Your task to perform on an android device: open a new tab in the chrome app Image 0: 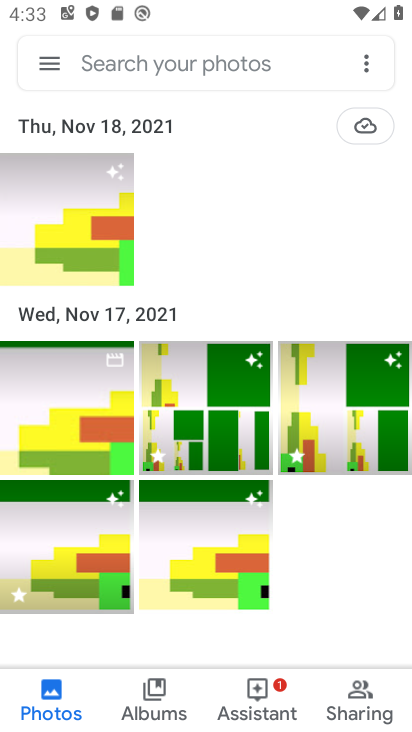
Step 0: press home button
Your task to perform on an android device: open a new tab in the chrome app Image 1: 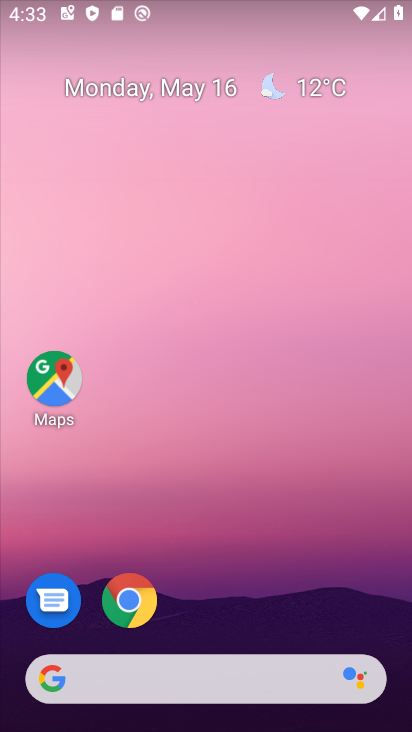
Step 1: click (139, 600)
Your task to perform on an android device: open a new tab in the chrome app Image 2: 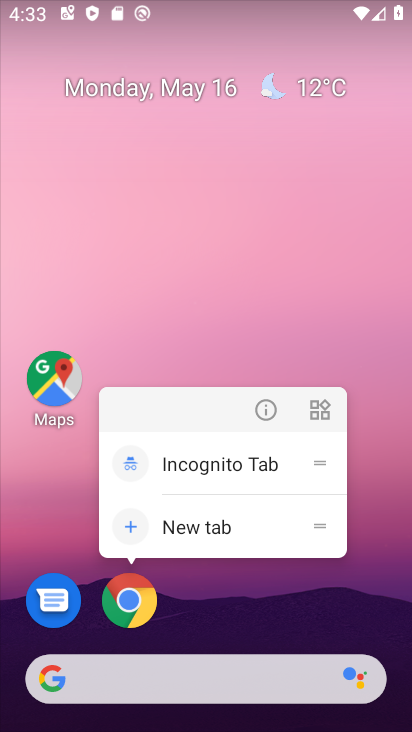
Step 2: click (129, 594)
Your task to perform on an android device: open a new tab in the chrome app Image 3: 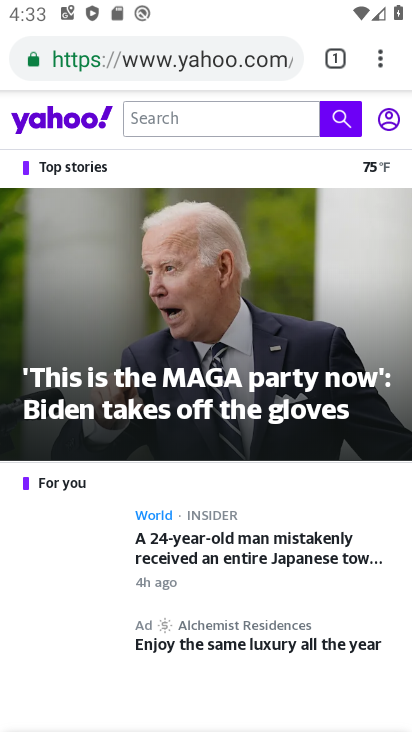
Step 3: click (376, 49)
Your task to perform on an android device: open a new tab in the chrome app Image 4: 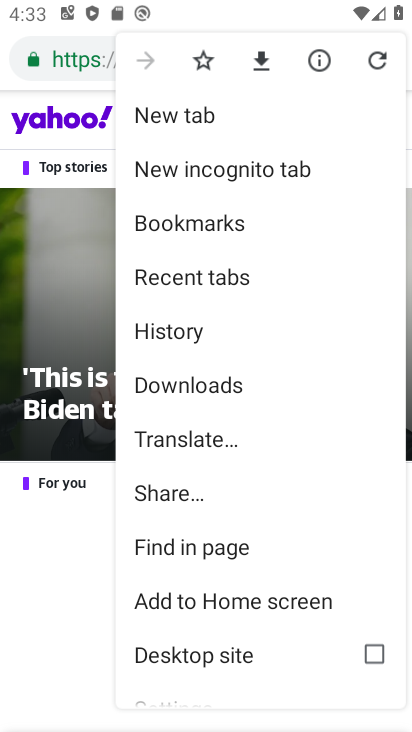
Step 4: click (182, 120)
Your task to perform on an android device: open a new tab in the chrome app Image 5: 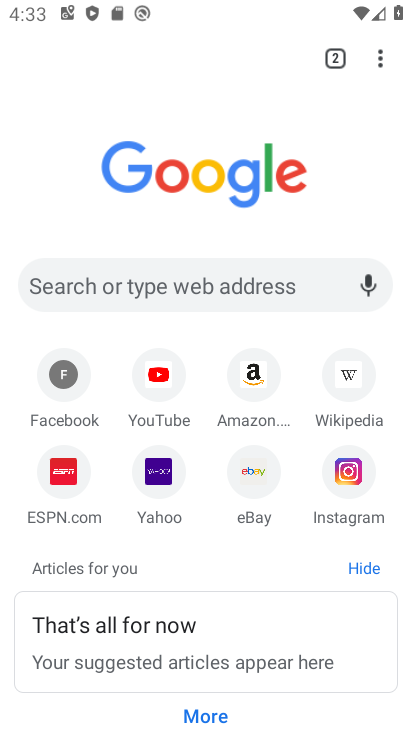
Step 5: task complete